Your task to perform on an android device: install app "PUBG MOBILE" Image 0: 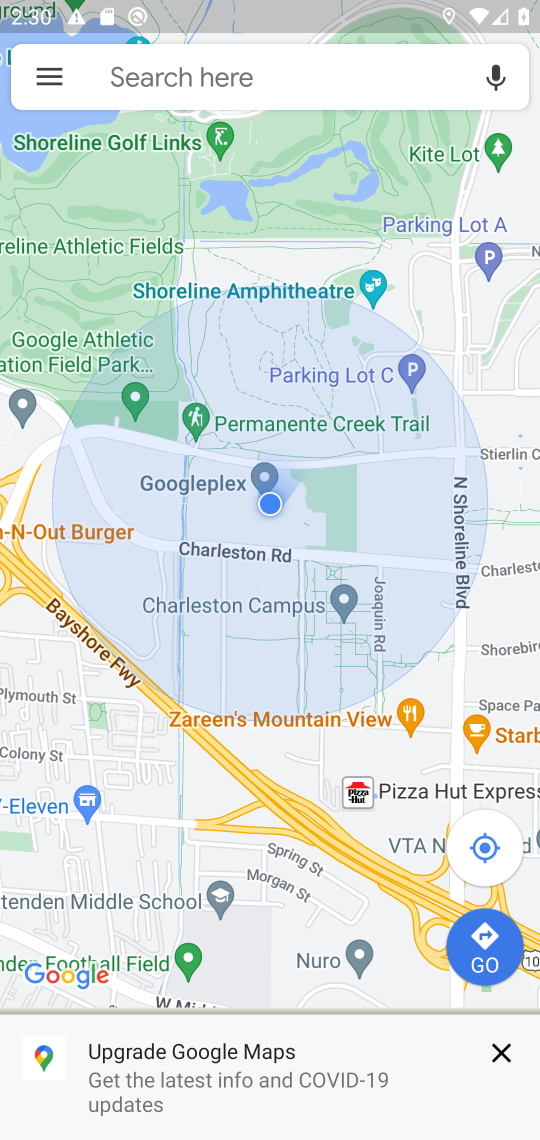
Step 0: press home button
Your task to perform on an android device: install app "PUBG MOBILE" Image 1: 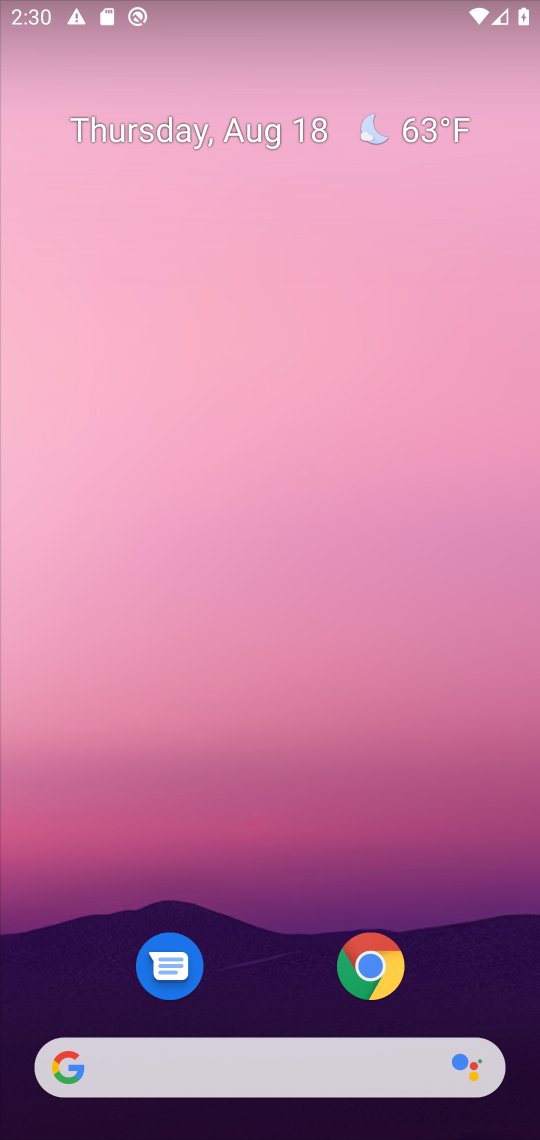
Step 1: drag from (283, 1009) to (398, 145)
Your task to perform on an android device: install app "PUBG MOBILE" Image 2: 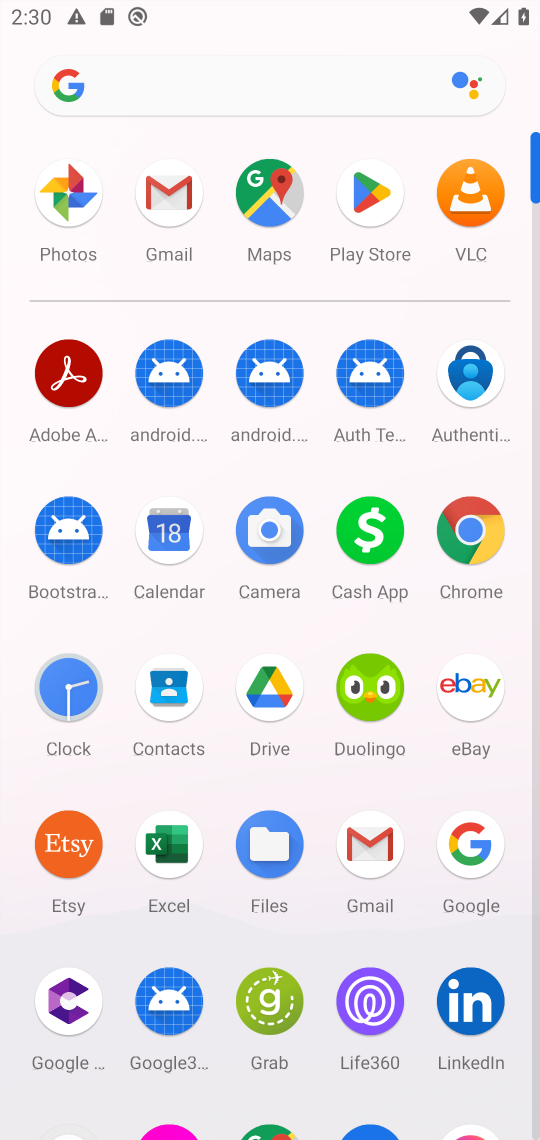
Step 2: click (366, 193)
Your task to perform on an android device: install app "PUBG MOBILE" Image 3: 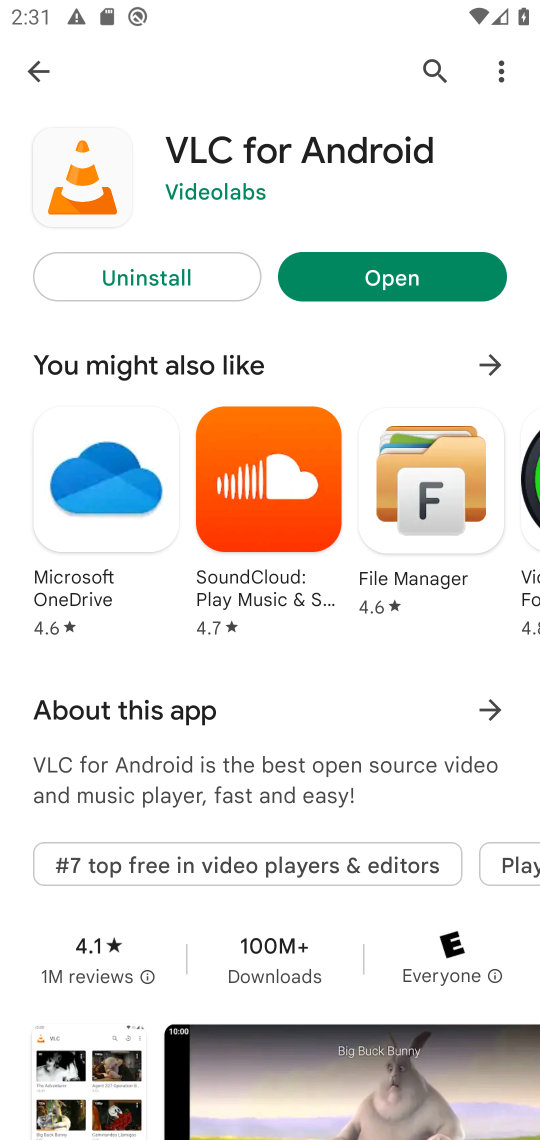
Step 3: click (435, 77)
Your task to perform on an android device: install app "PUBG MOBILE" Image 4: 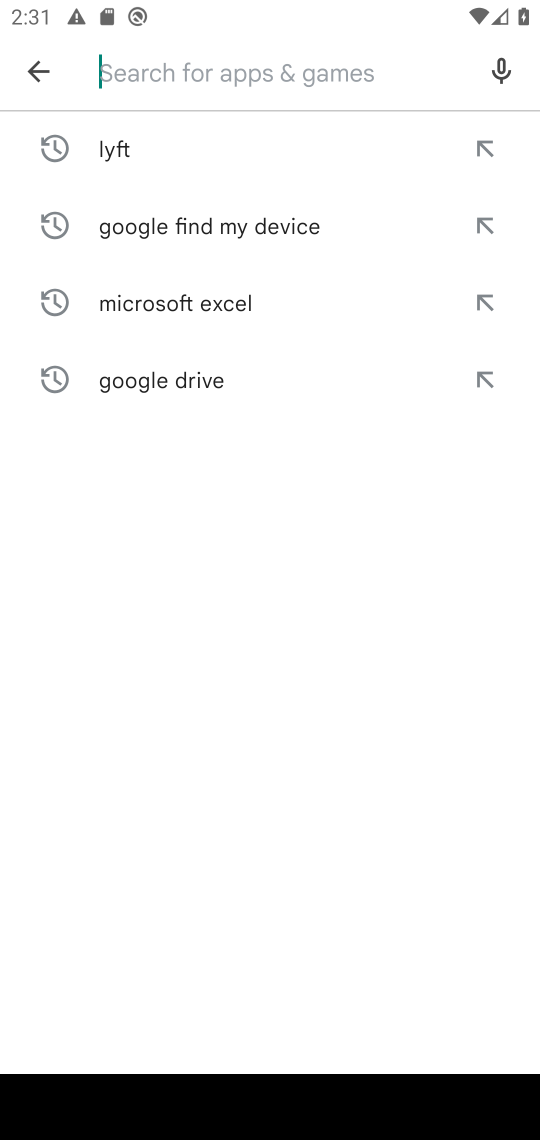
Step 4: type "PUBG MOBILE"
Your task to perform on an android device: install app "PUBG MOBILE" Image 5: 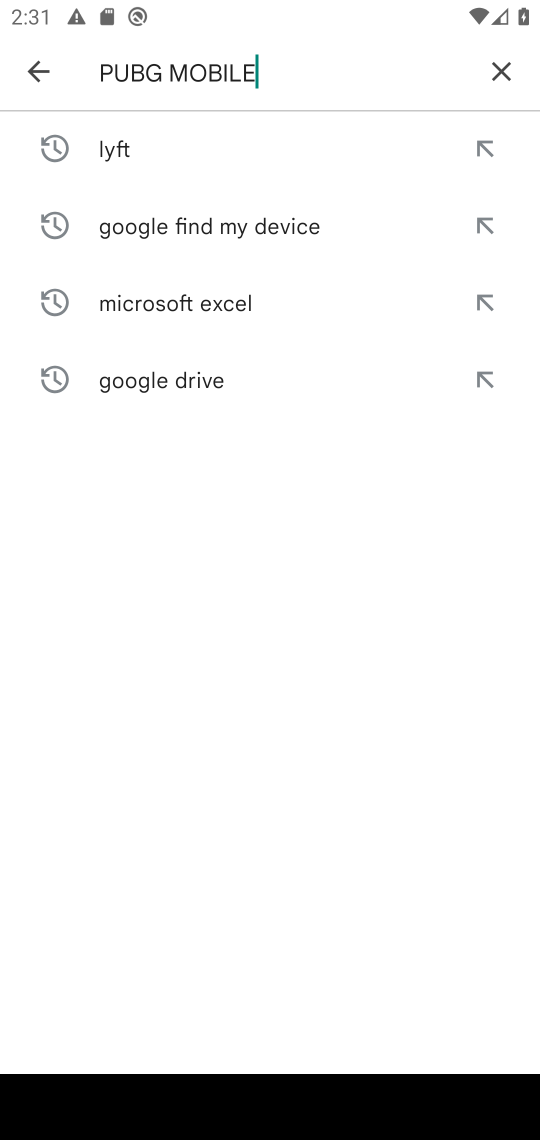
Step 5: type ""
Your task to perform on an android device: install app "PUBG MOBILE" Image 6: 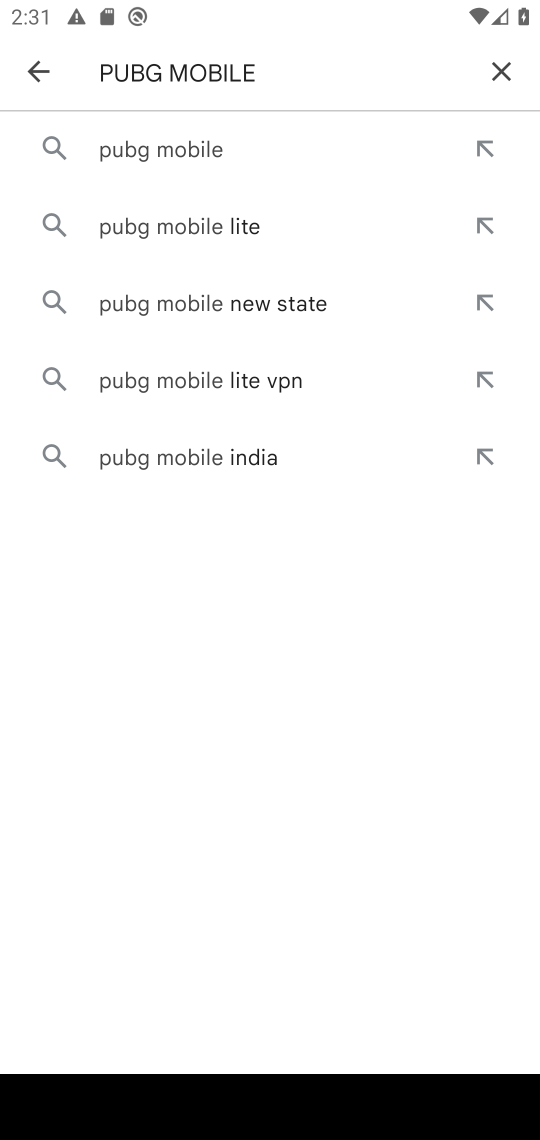
Step 6: click (194, 162)
Your task to perform on an android device: install app "PUBG MOBILE" Image 7: 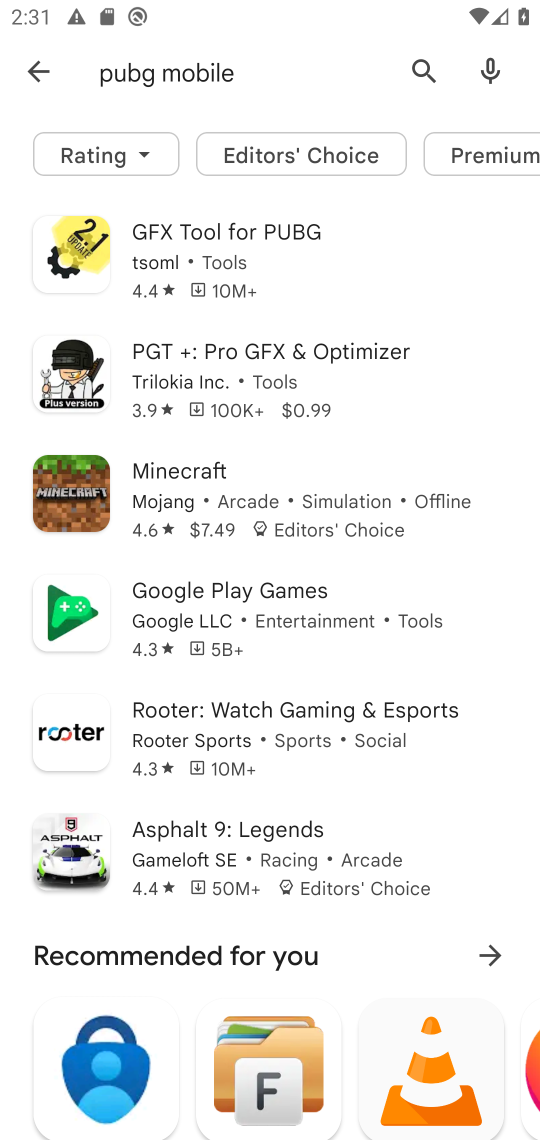
Step 7: task complete